Your task to perform on an android device: check battery use Image 0: 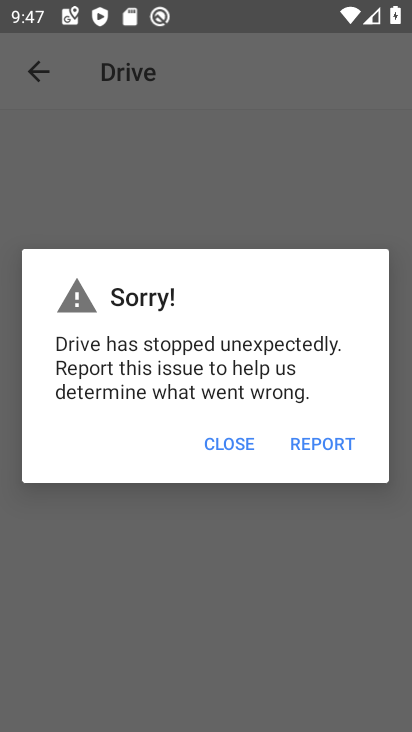
Step 0: press home button
Your task to perform on an android device: check battery use Image 1: 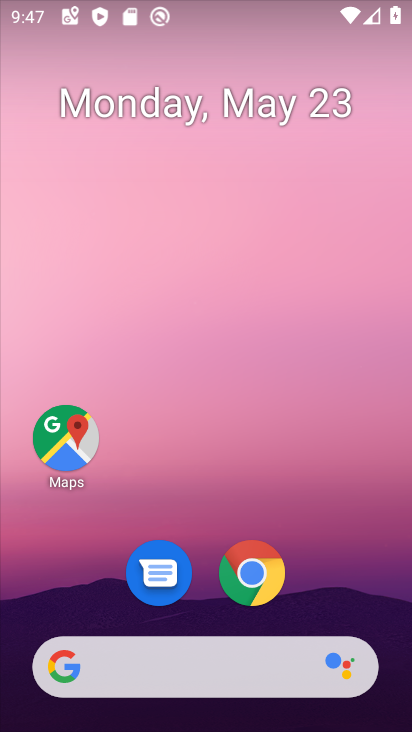
Step 1: drag from (369, 600) to (337, 193)
Your task to perform on an android device: check battery use Image 2: 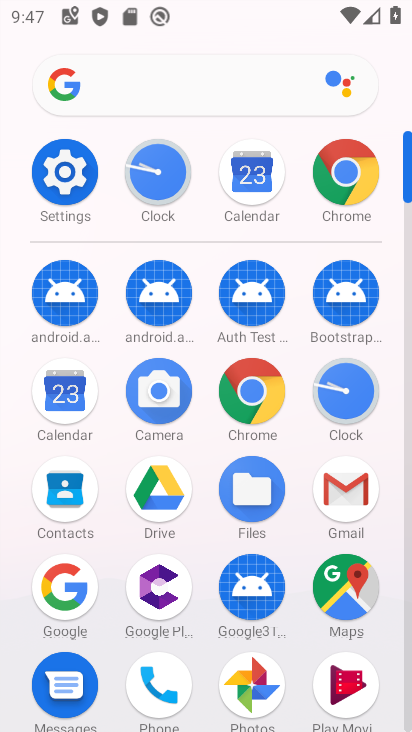
Step 2: drag from (391, 609) to (395, 521)
Your task to perform on an android device: check battery use Image 3: 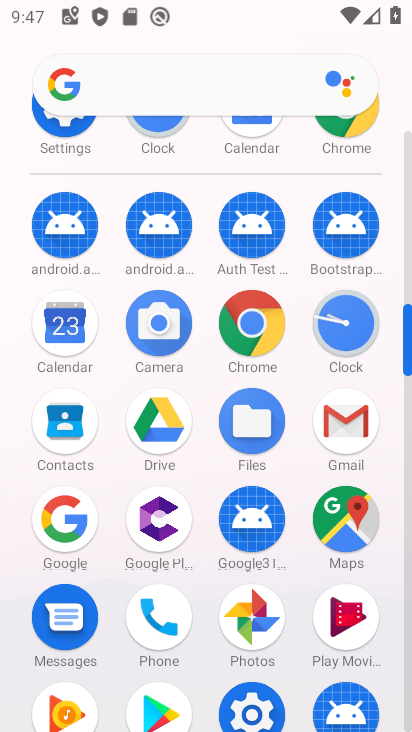
Step 3: drag from (393, 588) to (390, 512)
Your task to perform on an android device: check battery use Image 4: 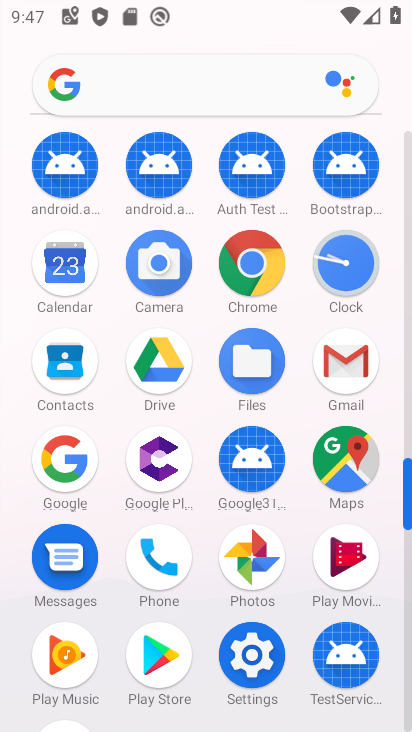
Step 4: drag from (380, 595) to (390, 505)
Your task to perform on an android device: check battery use Image 5: 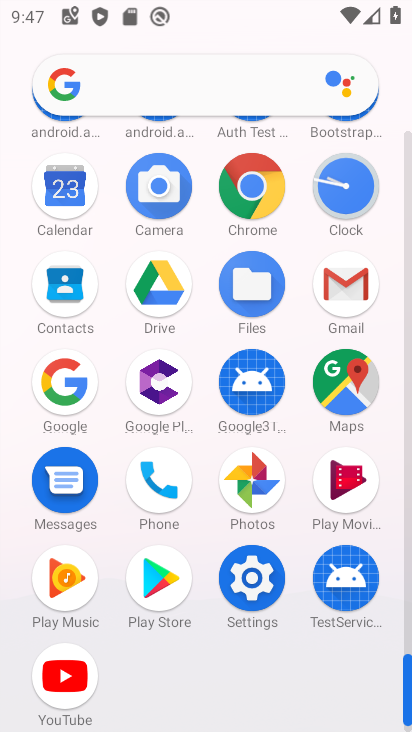
Step 5: click (259, 595)
Your task to perform on an android device: check battery use Image 6: 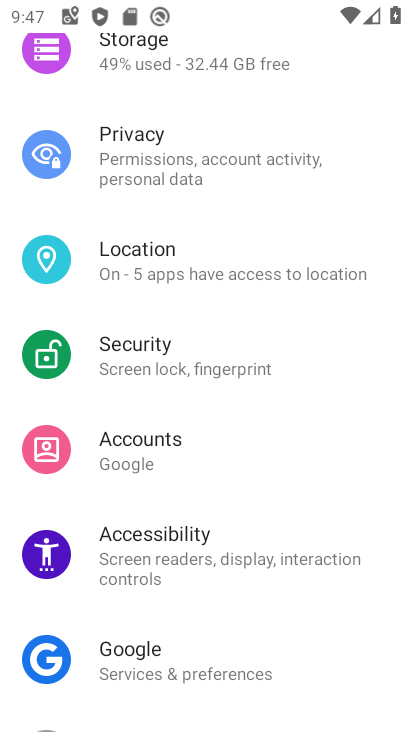
Step 6: drag from (292, 640) to (285, 526)
Your task to perform on an android device: check battery use Image 7: 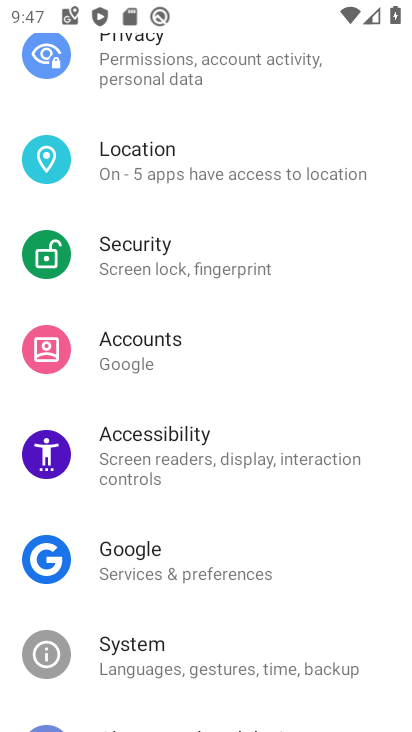
Step 7: drag from (297, 602) to (300, 469)
Your task to perform on an android device: check battery use Image 8: 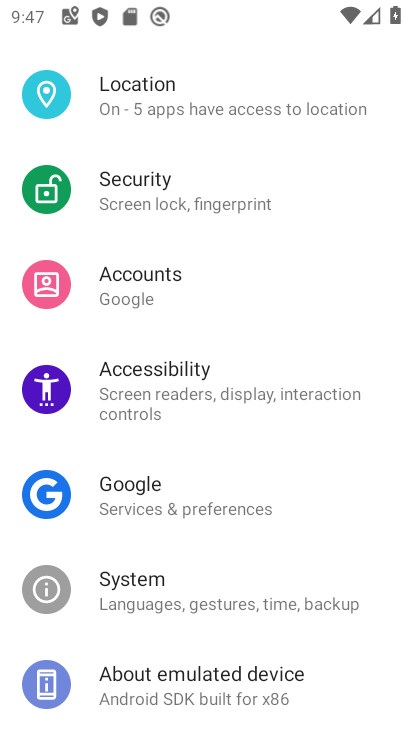
Step 8: drag from (342, 645) to (340, 506)
Your task to perform on an android device: check battery use Image 9: 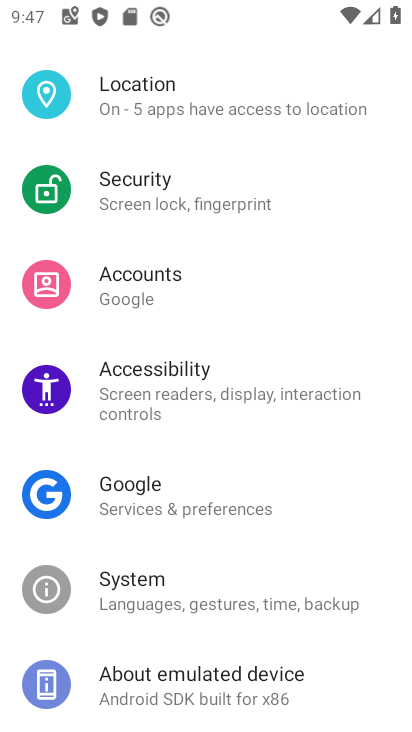
Step 9: drag from (355, 318) to (356, 454)
Your task to perform on an android device: check battery use Image 10: 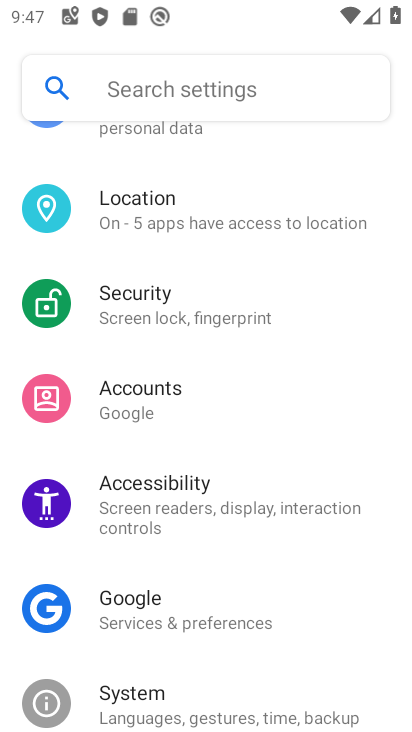
Step 10: drag from (343, 330) to (333, 504)
Your task to perform on an android device: check battery use Image 11: 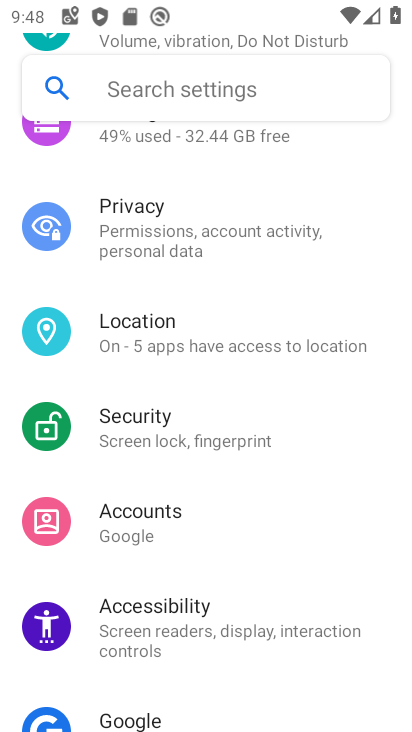
Step 11: drag from (339, 290) to (327, 454)
Your task to perform on an android device: check battery use Image 12: 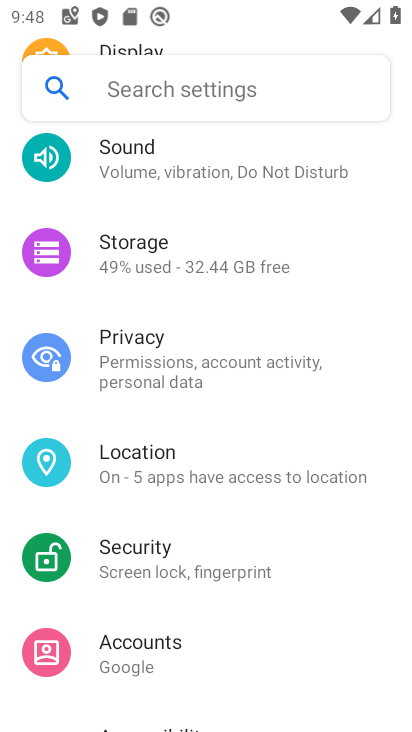
Step 12: drag from (337, 286) to (354, 456)
Your task to perform on an android device: check battery use Image 13: 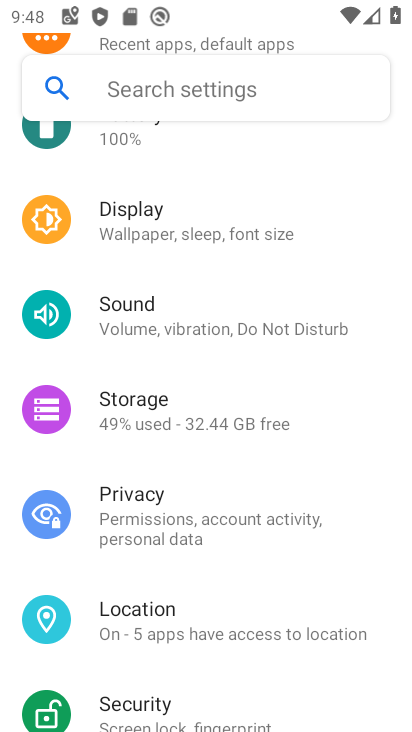
Step 13: drag from (381, 218) to (363, 413)
Your task to perform on an android device: check battery use Image 14: 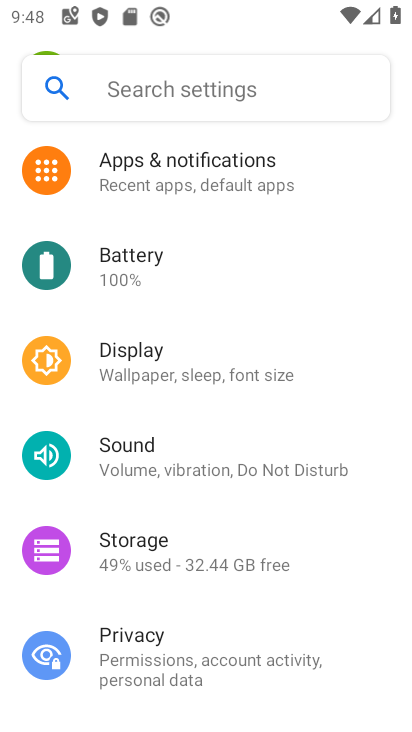
Step 14: click (196, 278)
Your task to perform on an android device: check battery use Image 15: 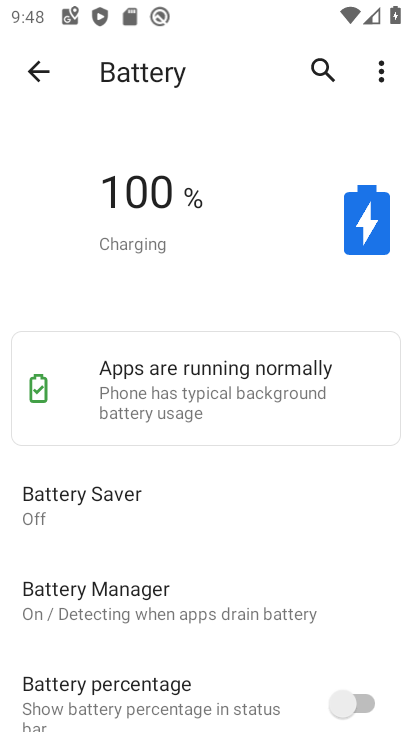
Step 15: click (383, 75)
Your task to perform on an android device: check battery use Image 16: 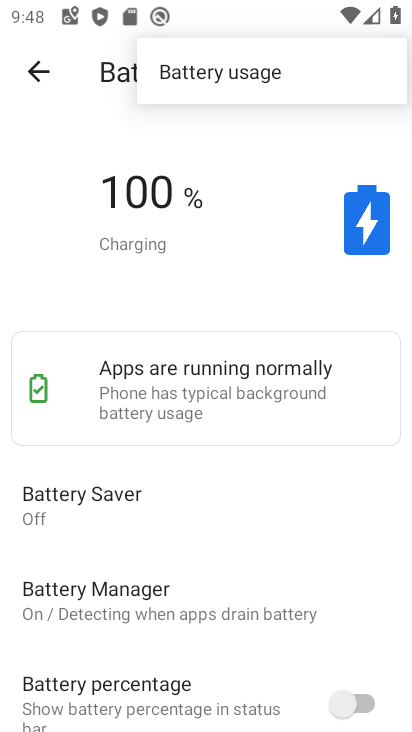
Step 16: click (293, 74)
Your task to perform on an android device: check battery use Image 17: 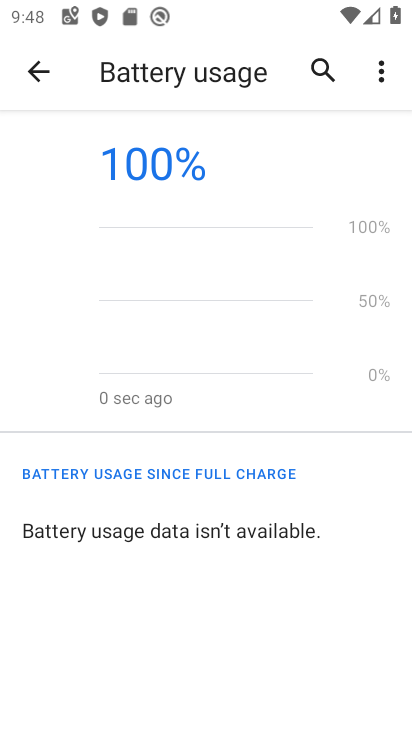
Step 17: task complete